Your task to perform on an android device: uninstall "HBO Max: Stream TV & Movies" Image 0: 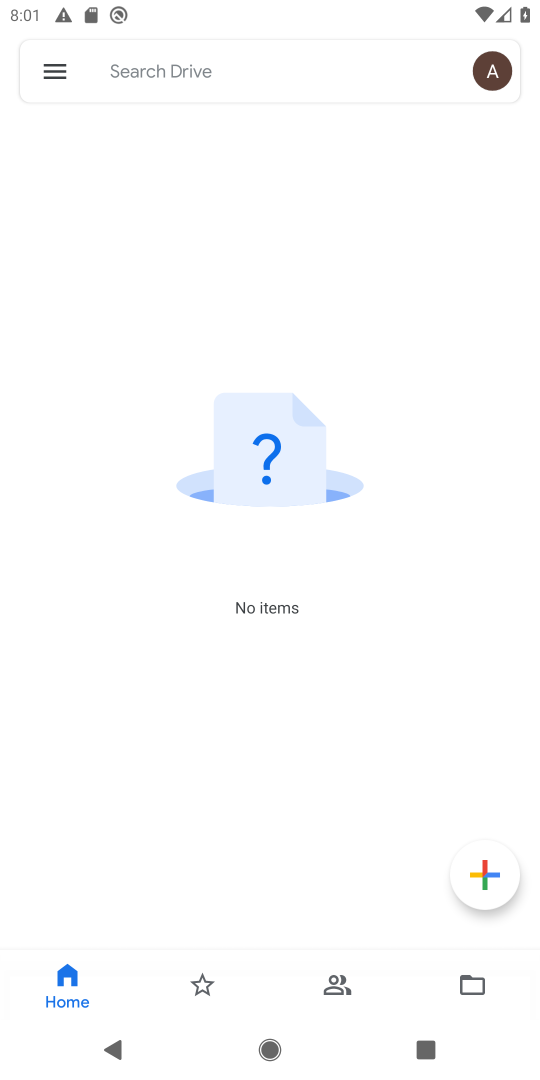
Step 0: press home button
Your task to perform on an android device: uninstall "HBO Max: Stream TV & Movies" Image 1: 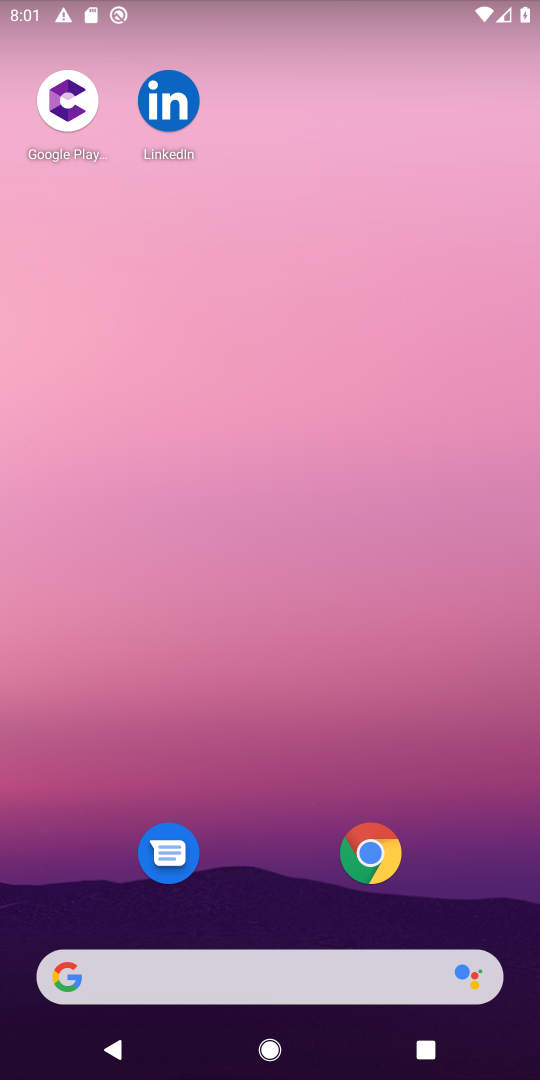
Step 1: drag from (297, 832) to (331, 277)
Your task to perform on an android device: uninstall "HBO Max: Stream TV & Movies" Image 2: 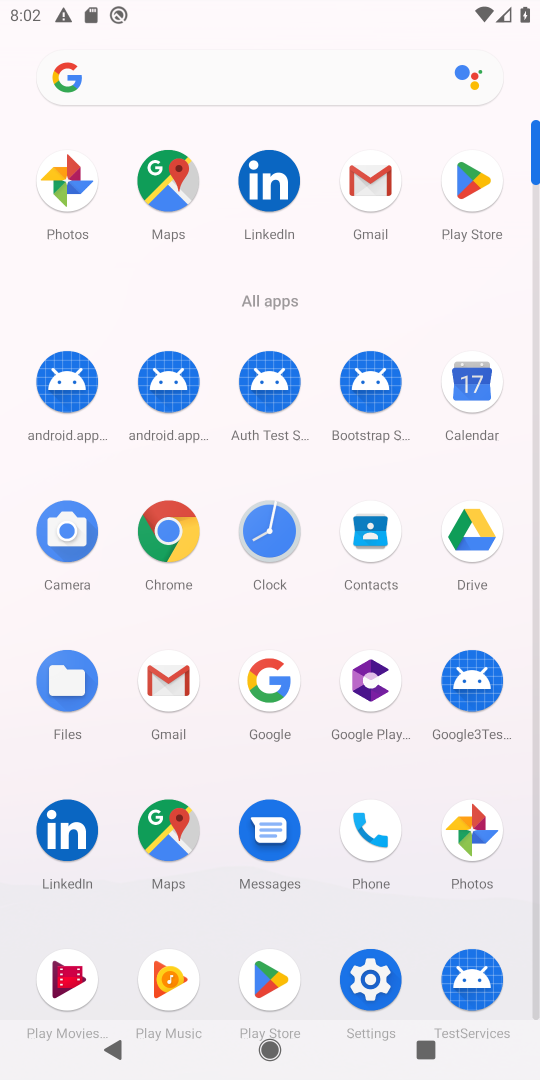
Step 2: click (486, 184)
Your task to perform on an android device: uninstall "HBO Max: Stream TV & Movies" Image 3: 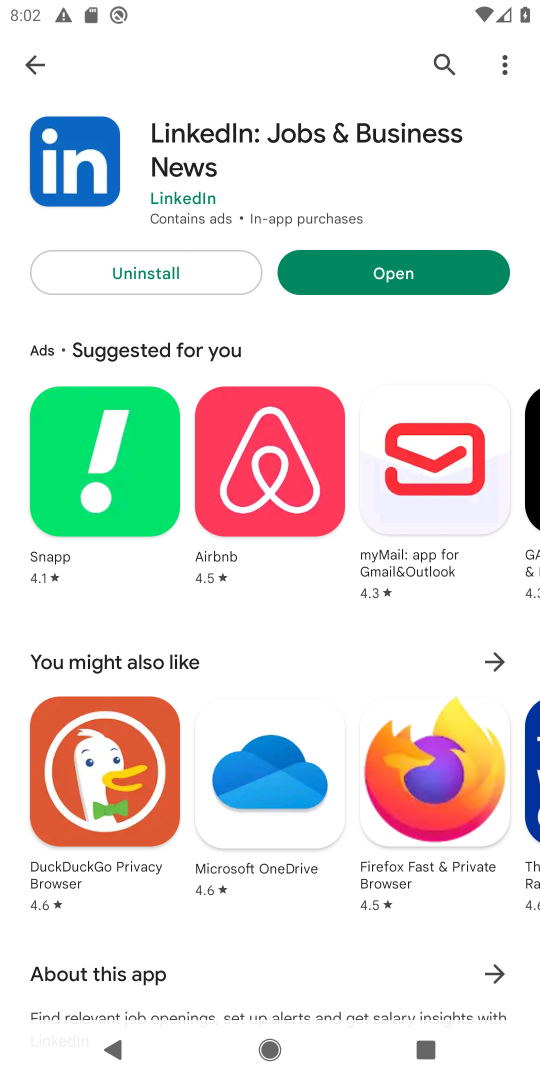
Step 3: click (434, 61)
Your task to perform on an android device: uninstall "HBO Max: Stream TV & Movies" Image 4: 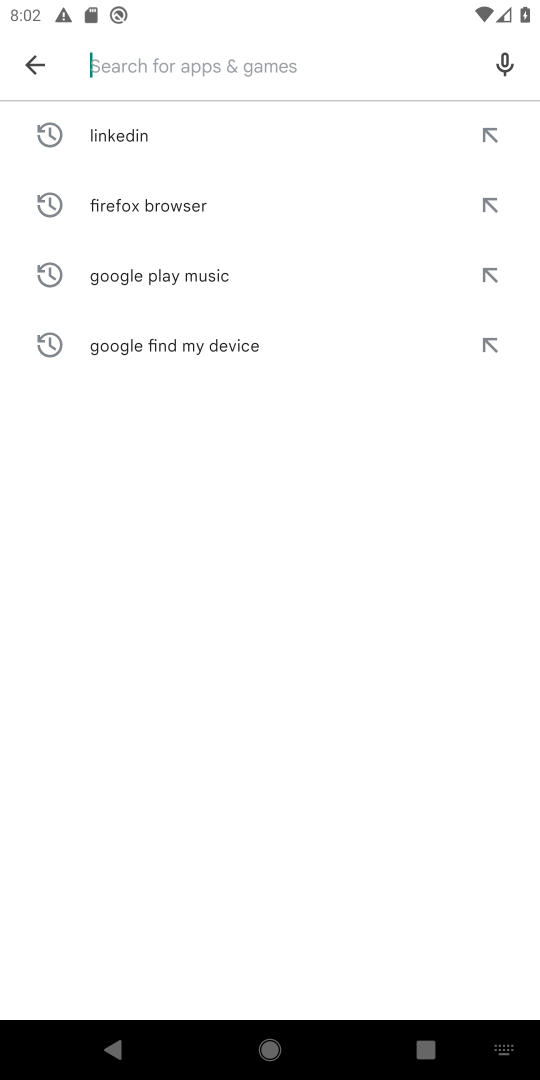
Step 4: type "HBO Max: Stream TV & Movies"
Your task to perform on an android device: uninstall "HBO Max: Stream TV & Movies" Image 5: 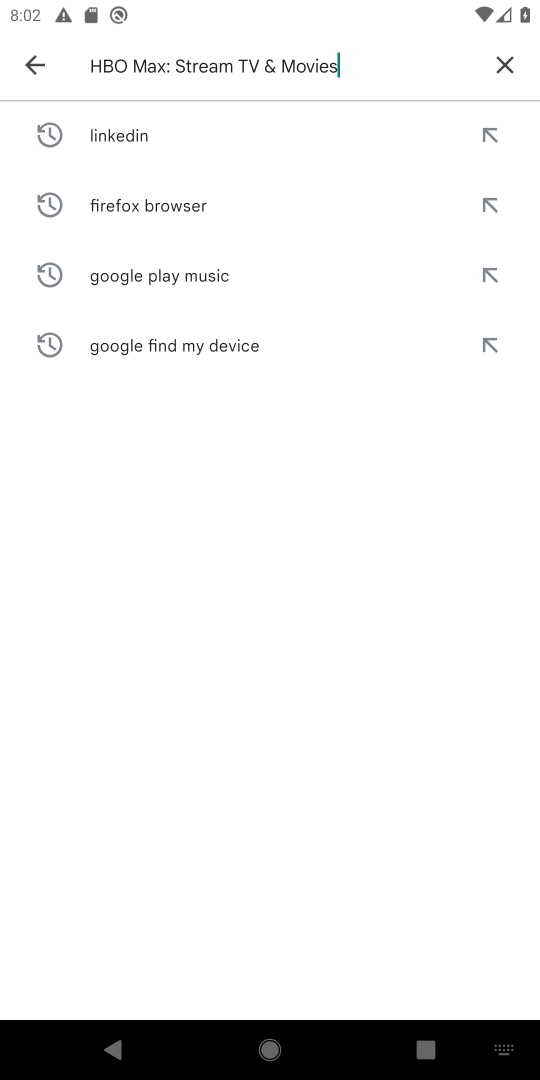
Step 5: type ""
Your task to perform on an android device: uninstall "HBO Max: Stream TV & Movies" Image 6: 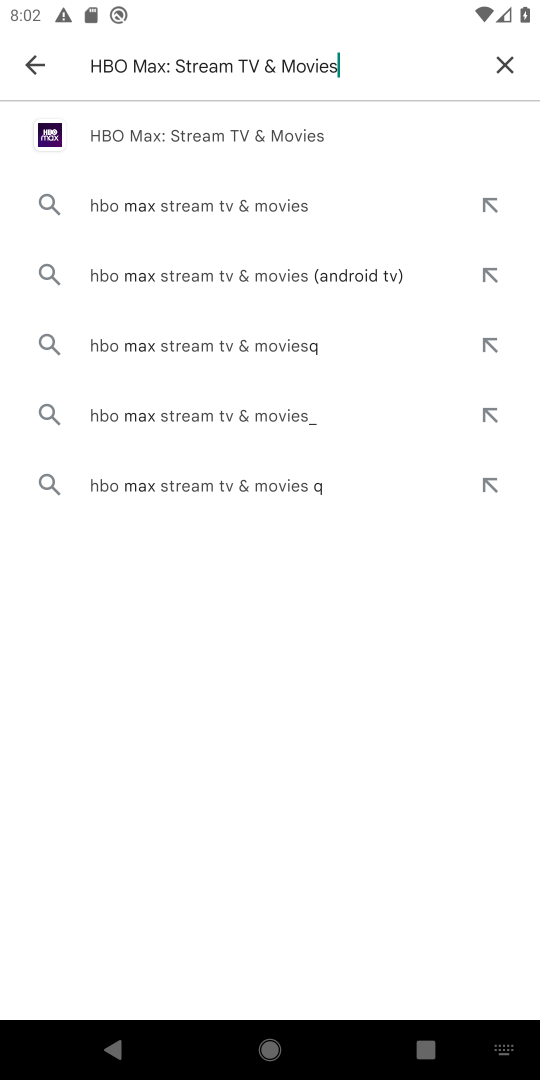
Step 6: click (279, 130)
Your task to perform on an android device: uninstall "HBO Max: Stream TV & Movies" Image 7: 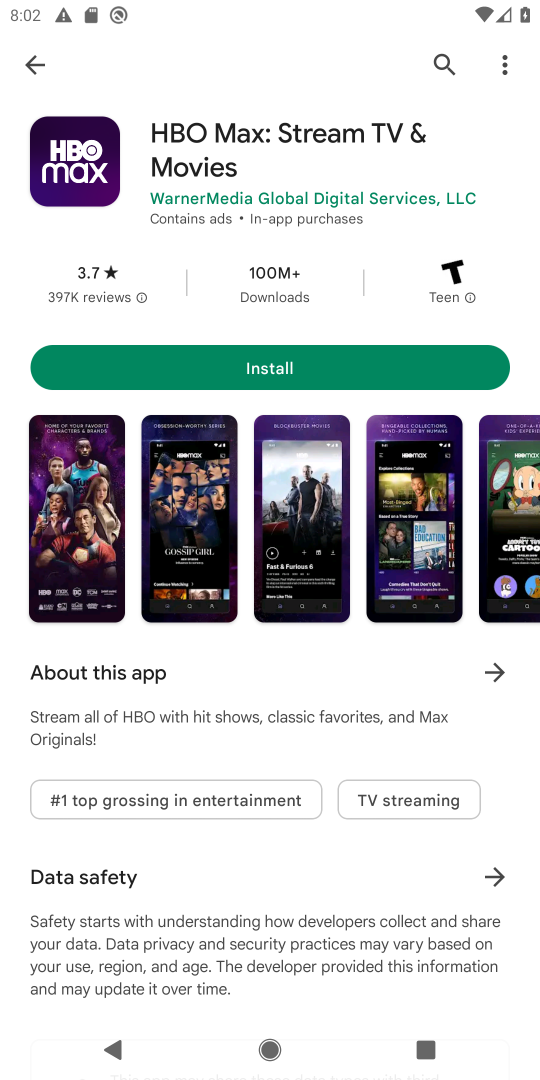
Step 7: task complete